Your task to perform on an android device: Clear the shopping cart on newegg. Image 0: 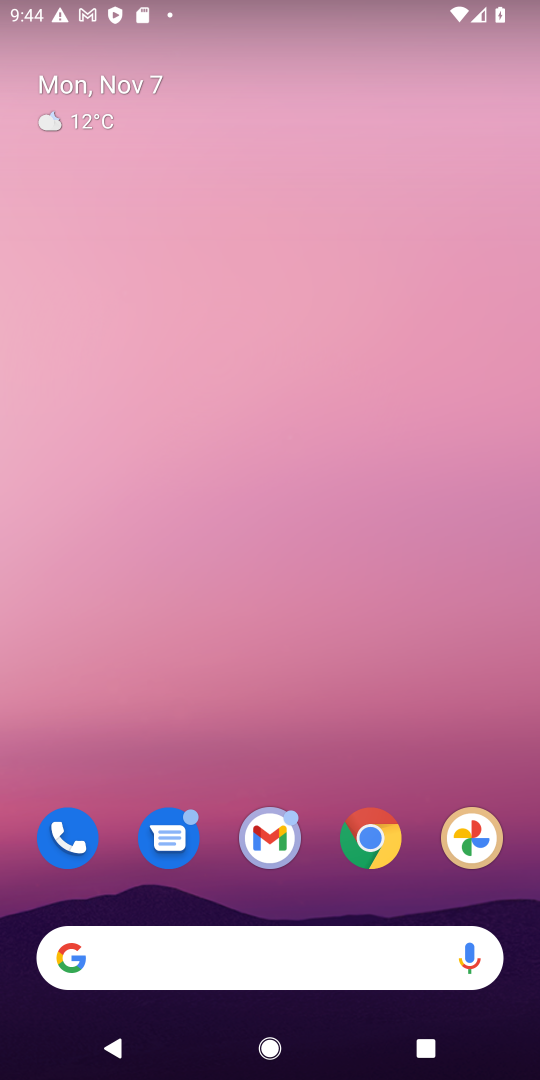
Step 0: click (375, 836)
Your task to perform on an android device: Clear the shopping cart on newegg. Image 1: 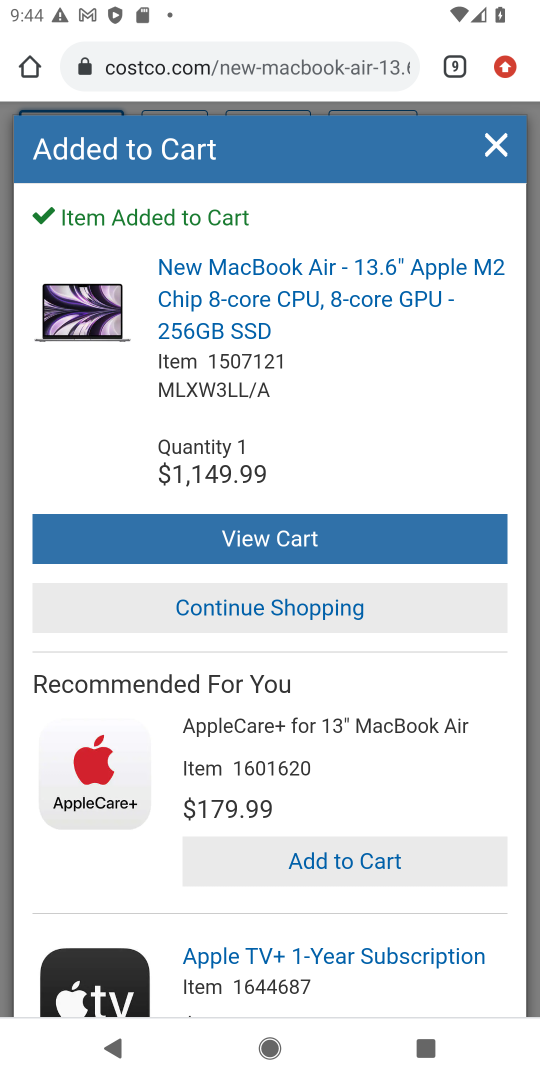
Step 1: click (460, 65)
Your task to perform on an android device: Clear the shopping cart on newegg. Image 2: 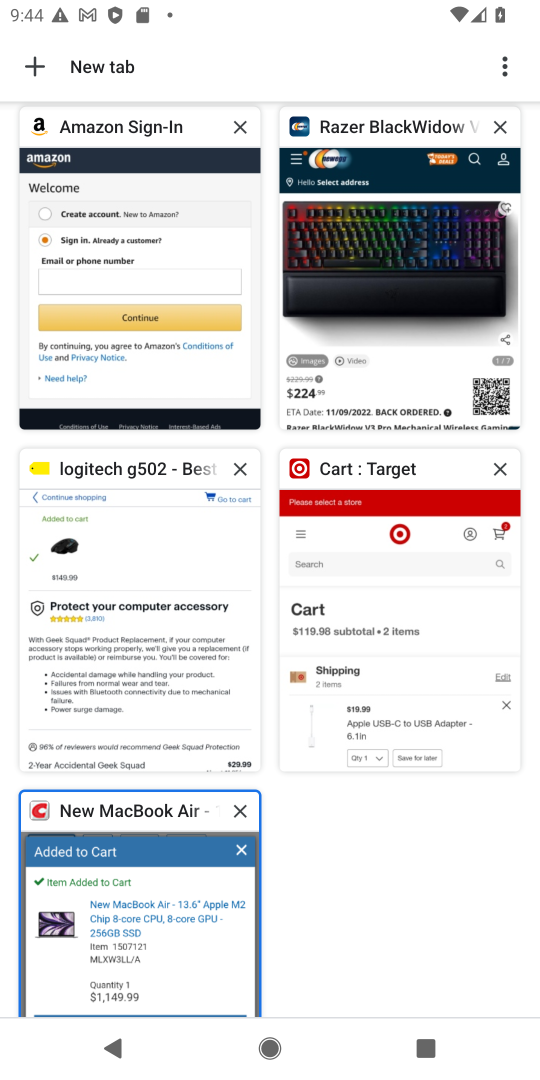
Step 2: click (377, 292)
Your task to perform on an android device: Clear the shopping cart on newegg. Image 3: 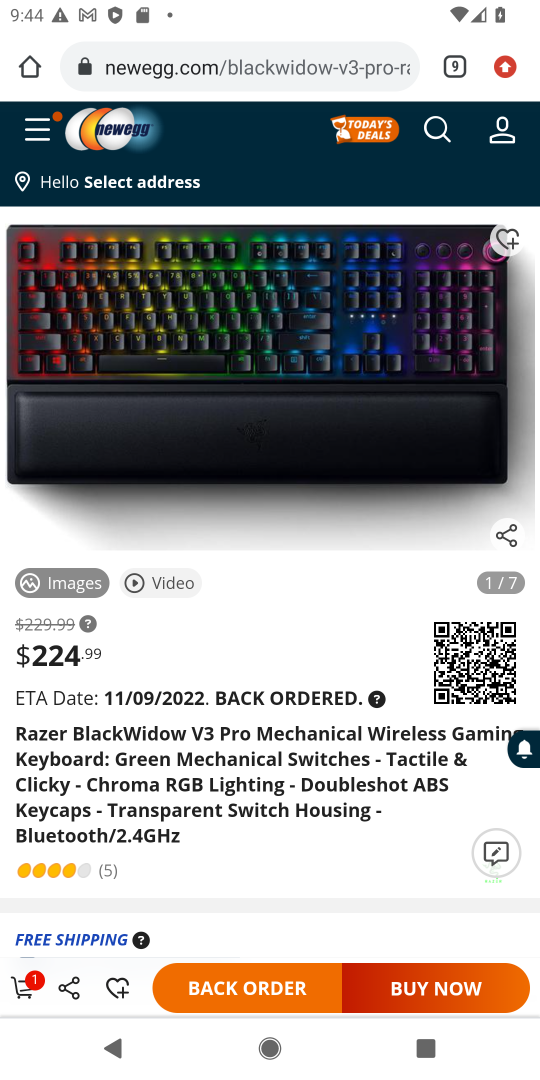
Step 3: click (21, 993)
Your task to perform on an android device: Clear the shopping cart on newegg. Image 4: 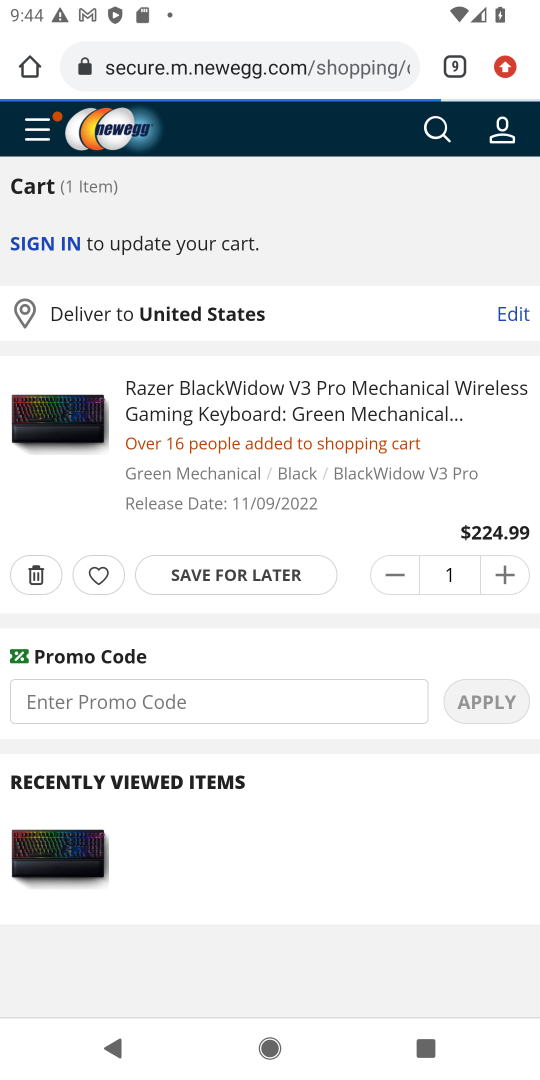
Step 4: click (29, 568)
Your task to perform on an android device: Clear the shopping cart on newegg. Image 5: 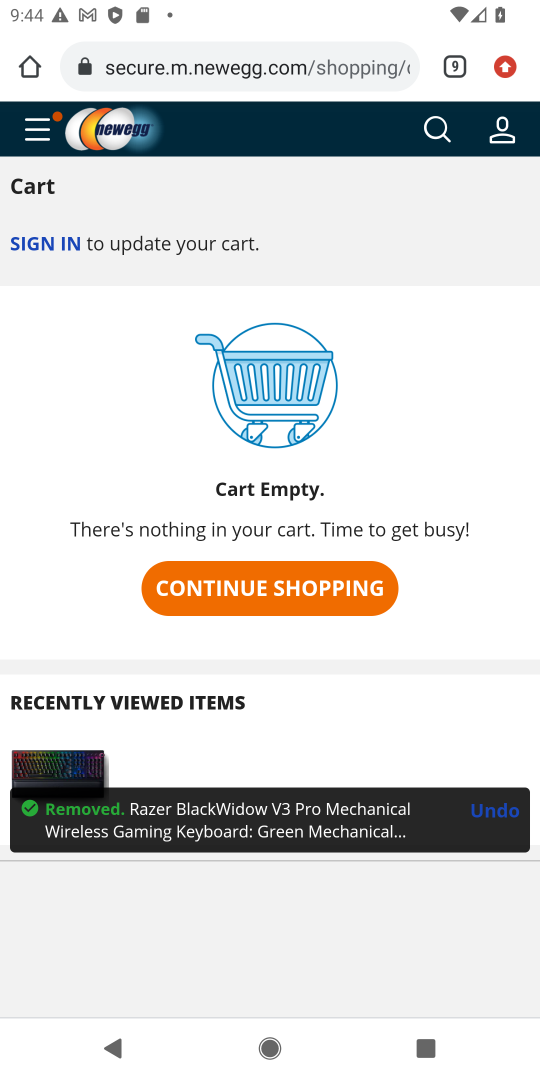
Step 5: task complete